Your task to perform on an android device: set the timer Image 0: 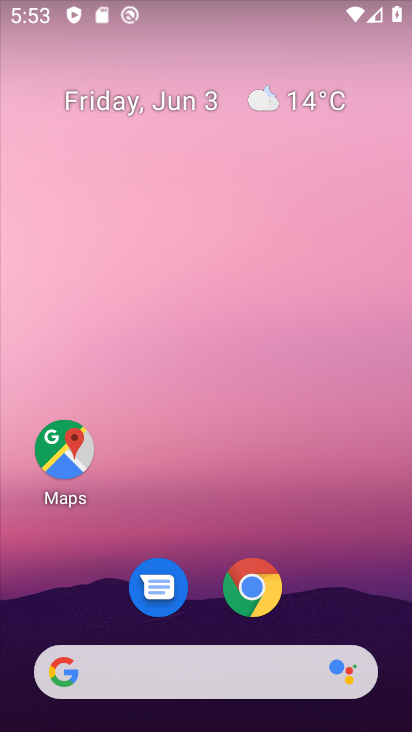
Step 0: drag from (295, 469) to (246, 52)
Your task to perform on an android device: set the timer Image 1: 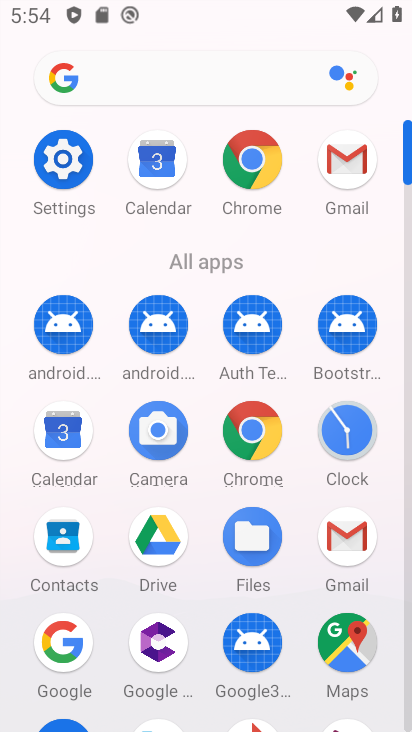
Step 1: click (344, 426)
Your task to perform on an android device: set the timer Image 2: 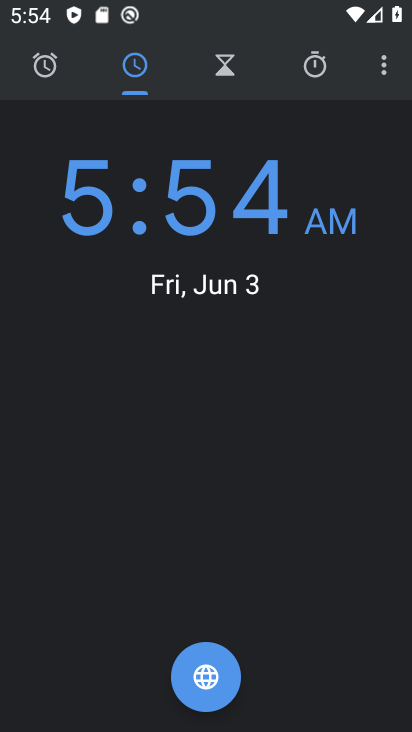
Step 2: drag from (377, 66) to (57, 71)
Your task to perform on an android device: set the timer Image 3: 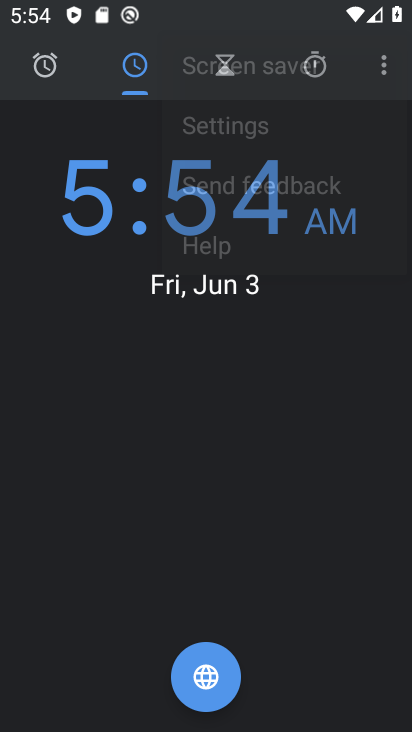
Step 3: click (41, 57)
Your task to perform on an android device: set the timer Image 4: 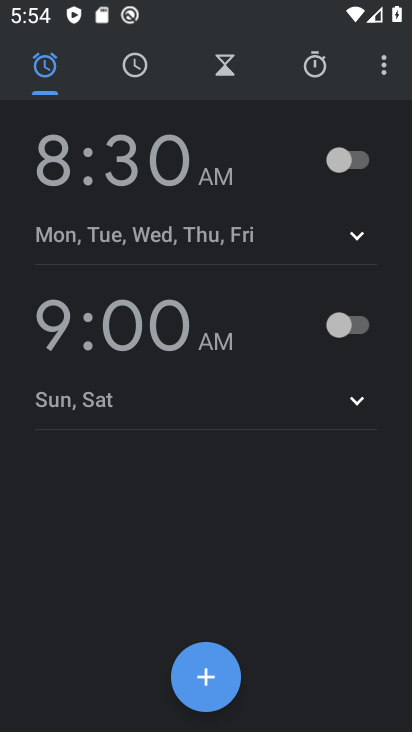
Step 4: click (202, 695)
Your task to perform on an android device: set the timer Image 5: 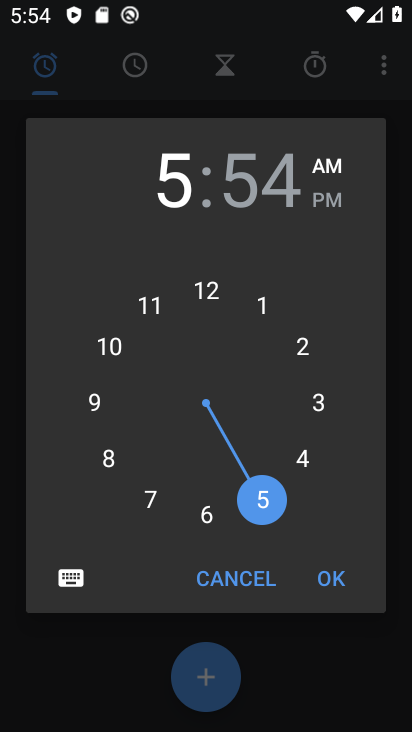
Step 5: click (321, 566)
Your task to perform on an android device: set the timer Image 6: 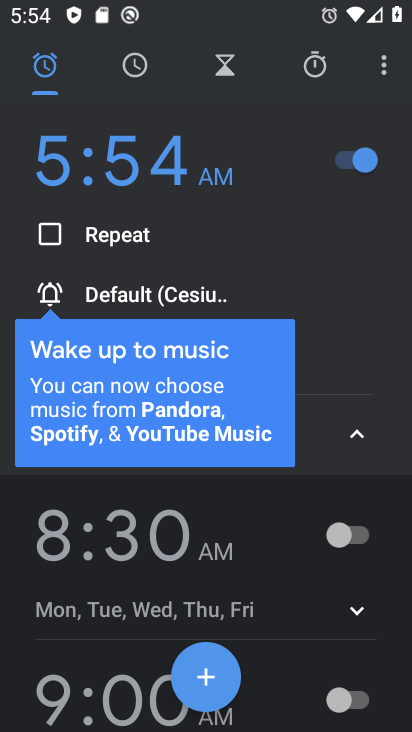
Step 6: task complete